Your task to perform on an android device: Go to Amazon Image 0: 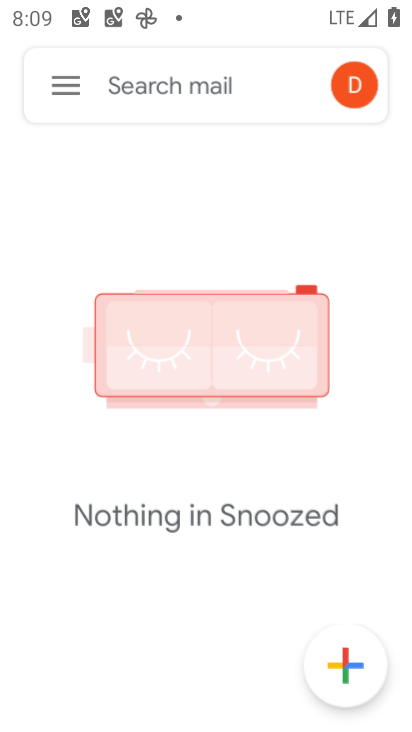
Step 0: drag from (394, 639) to (341, 102)
Your task to perform on an android device: Go to Amazon Image 1: 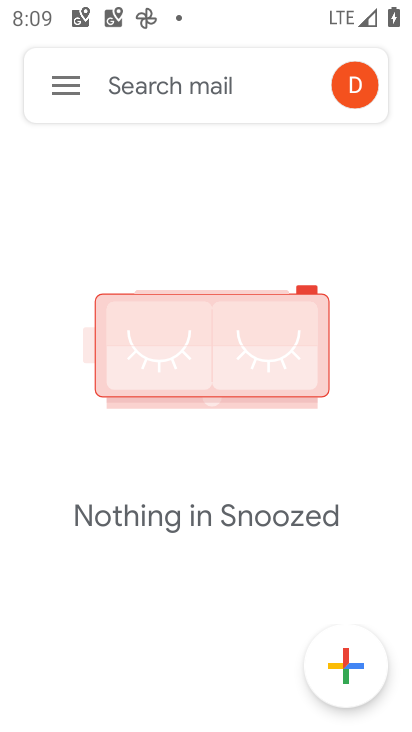
Step 1: press home button
Your task to perform on an android device: Go to Amazon Image 2: 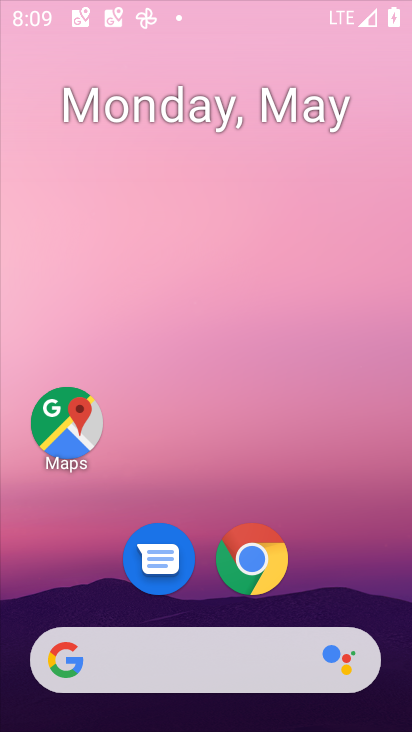
Step 2: drag from (376, 673) to (342, 117)
Your task to perform on an android device: Go to Amazon Image 3: 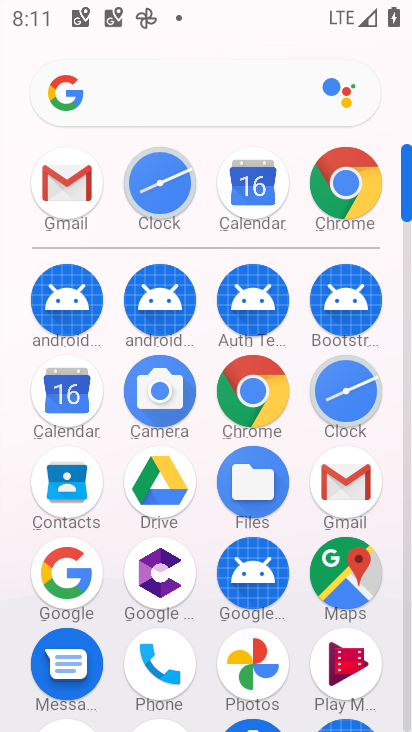
Step 3: click (252, 389)
Your task to perform on an android device: Go to Amazon Image 4: 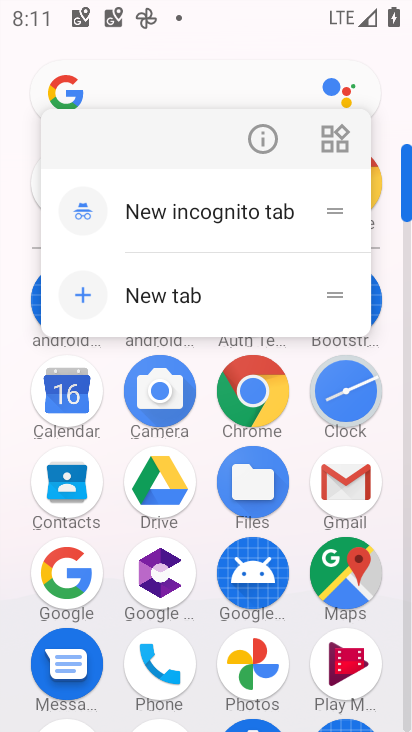
Step 4: click (252, 389)
Your task to perform on an android device: Go to Amazon Image 5: 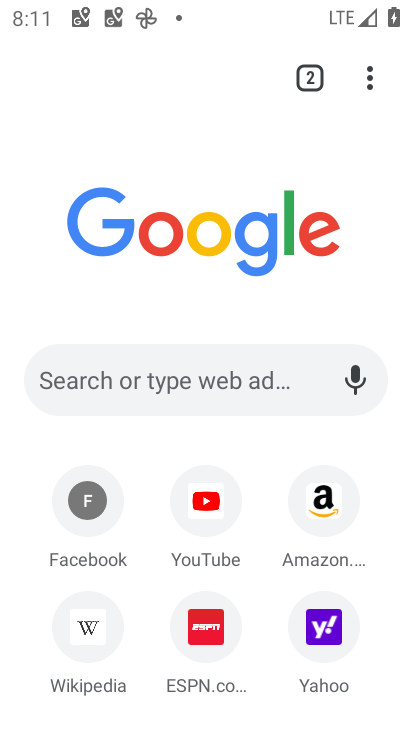
Step 5: click (328, 523)
Your task to perform on an android device: Go to Amazon Image 6: 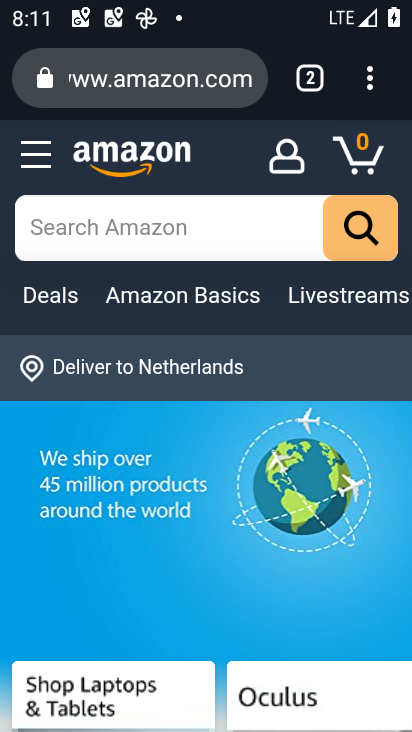
Step 6: task complete